Your task to perform on an android device: change the clock display to analog Image 0: 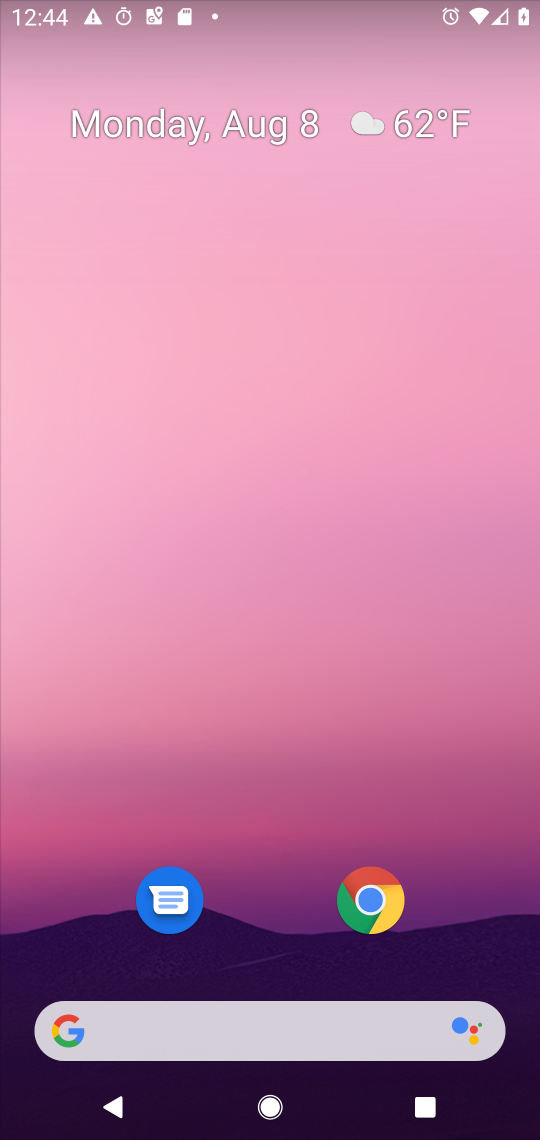
Step 0: press home button
Your task to perform on an android device: change the clock display to analog Image 1: 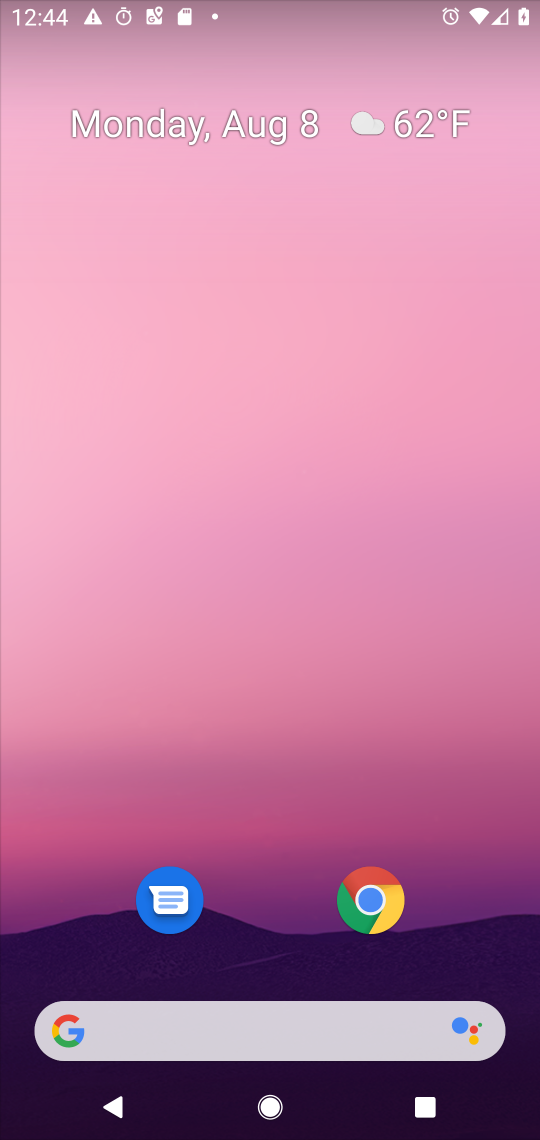
Step 1: drag from (284, 966) to (332, 25)
Your task to perform on an android device: change the clock display to analog Image 2: 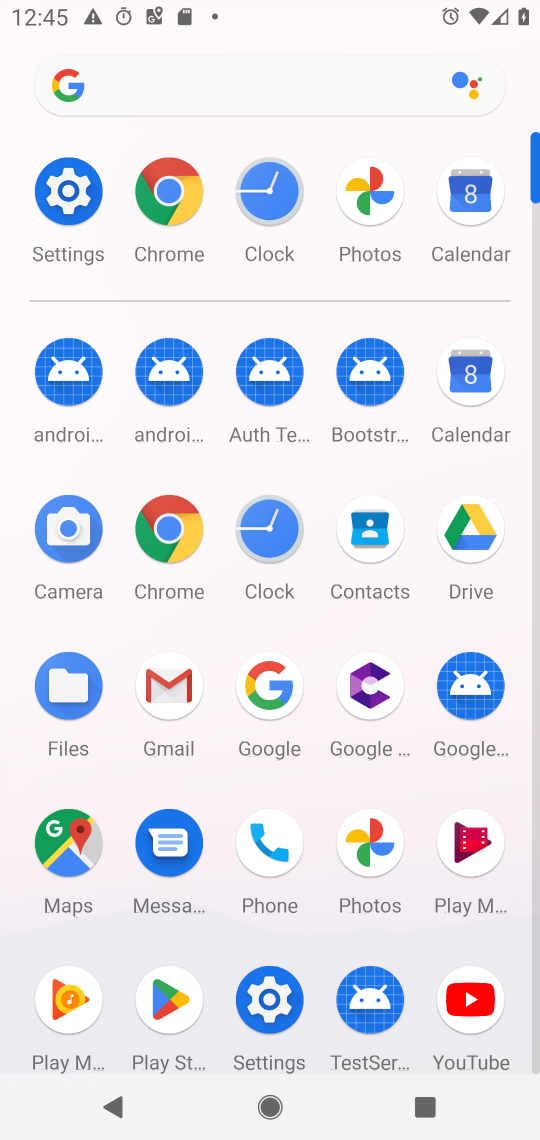
Step 2: click (263, 516)
Your task to perform on an android device: change the clock display to analog Image 3: 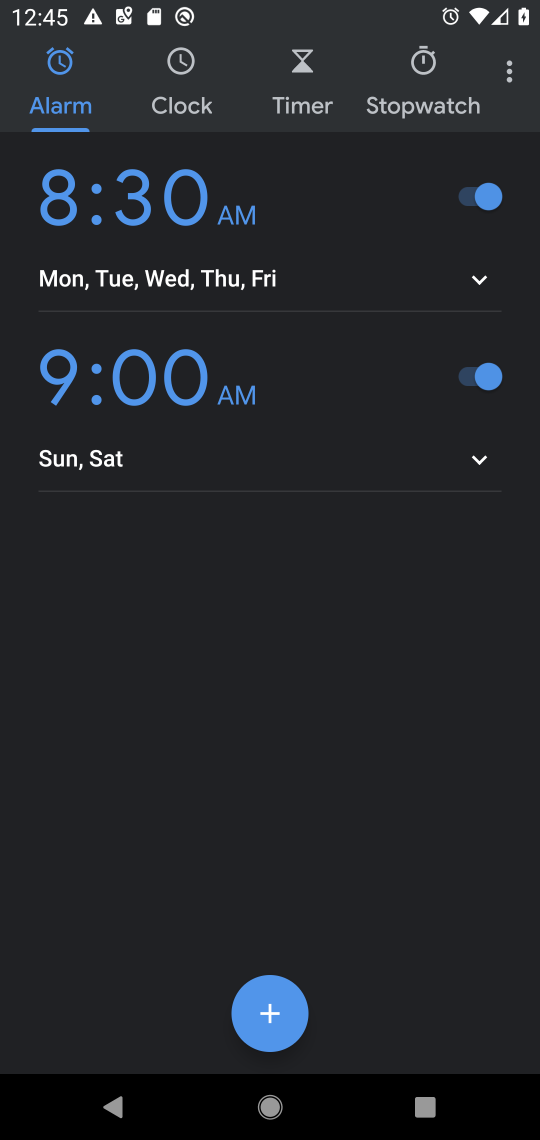
Step 3: click (507, 68)
Your task to perform on an android device: change the clock display to analog Image 4: 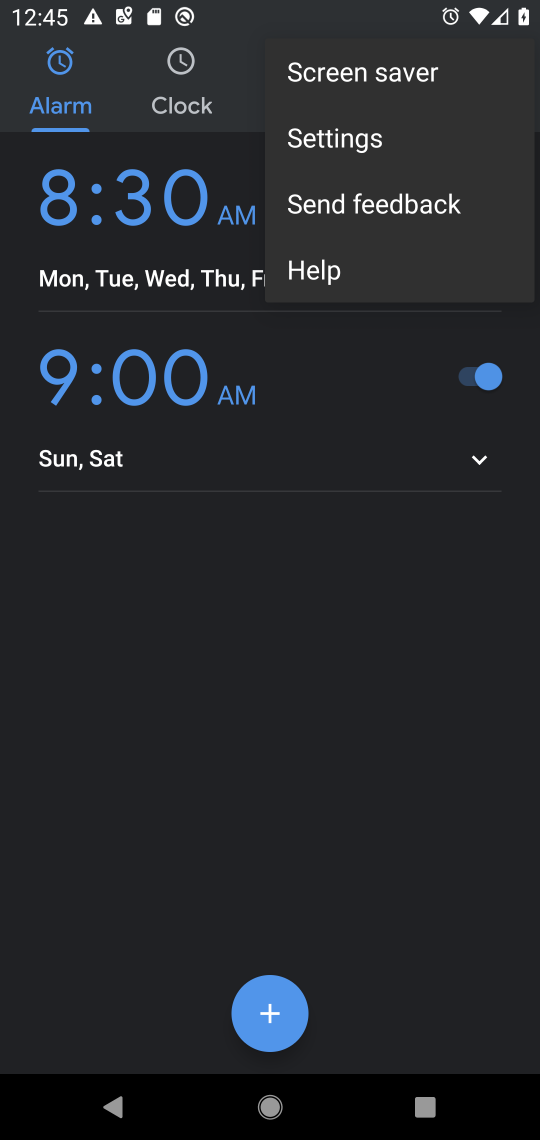
Step 4: click (403, 138)
Your task to perform on an android device: change the clock display to analog Image 5: 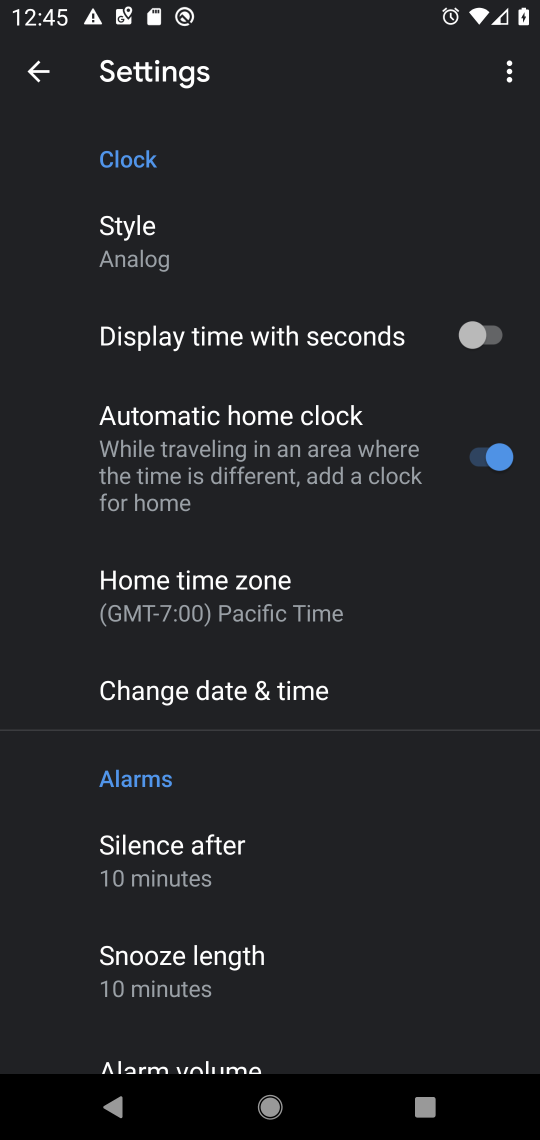
Step 5: click (175, 228)
Your task to perform on an android device: change the clock display to analog Image 6: 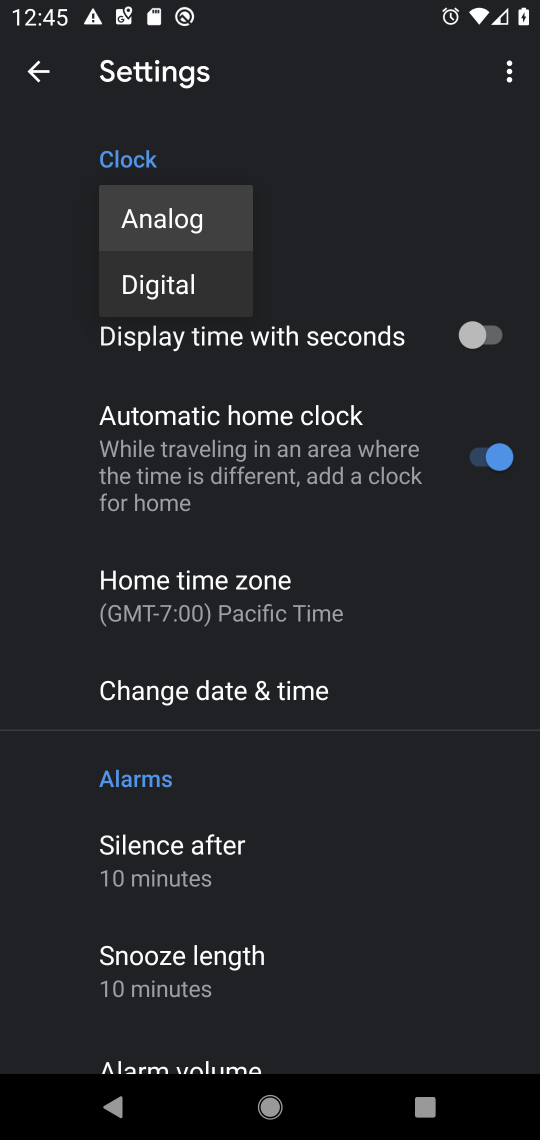
Step 6: click (166, 226)
Your task to perform on an android device: change the clock display to analog Image 7: 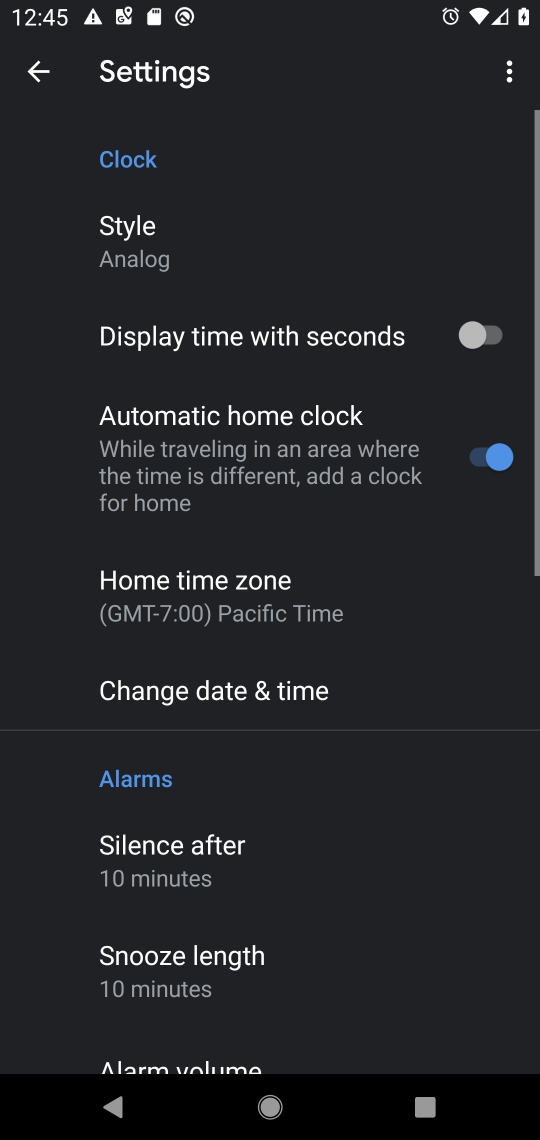
Step 7: task complete